Your task to perform on an android device: Go to wifi settings Image 0: 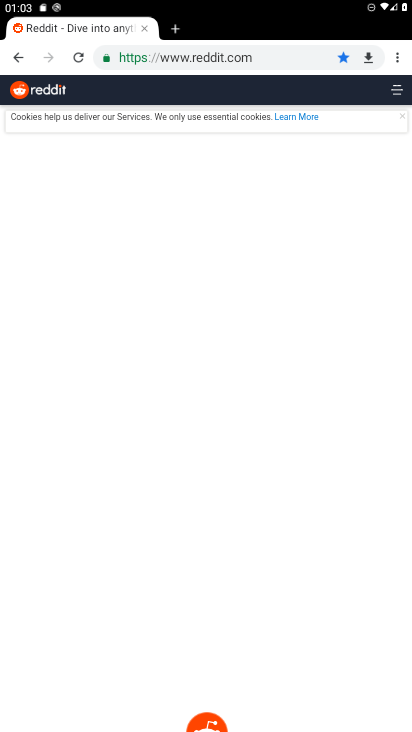
Step 0: press home button
Your task to perform on an android device: Go to wifi settings Image 1: 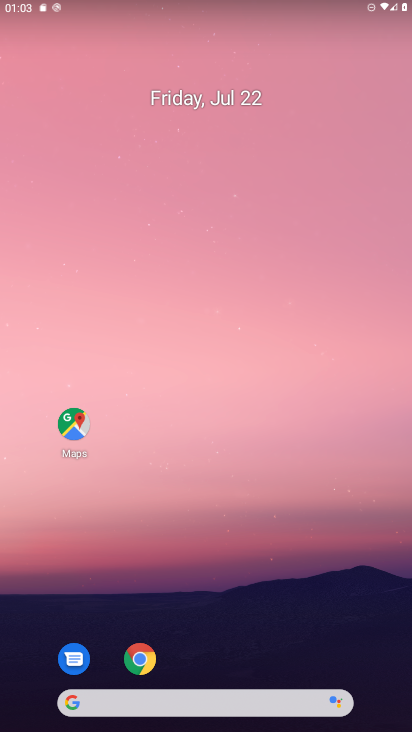
Step 1: drag from (183, 698) to (231, 191)
Your task to perform on an android device: Go to wifi settings Image 2: 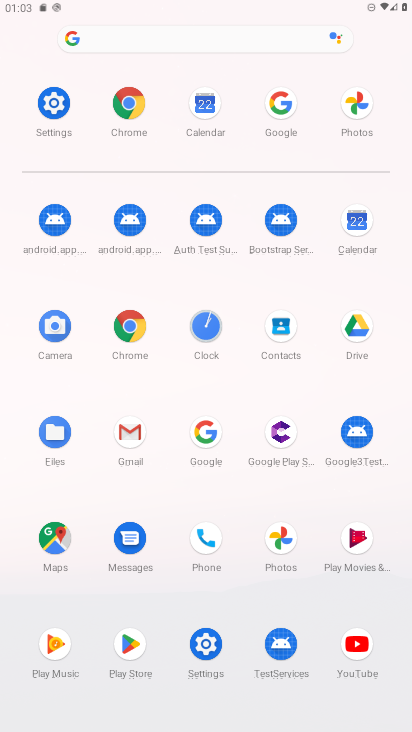
Step 2: click (53, 101)
Your task to perform on an android device: Go to wifi settings Image 3: 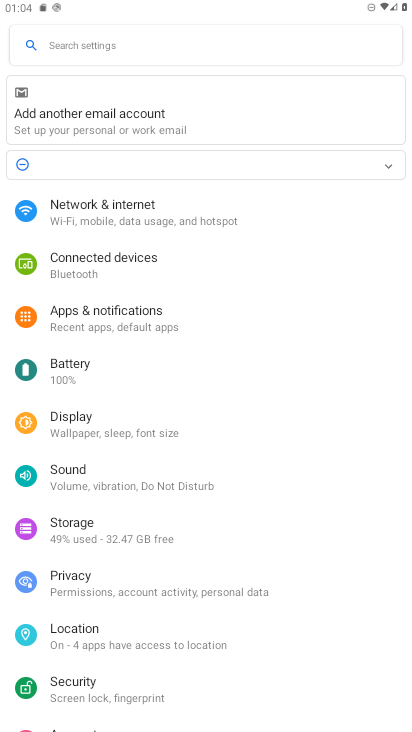
Step 3: click (83, 209)
Your task to perform on an android device: Go to wifi settings Image 4: 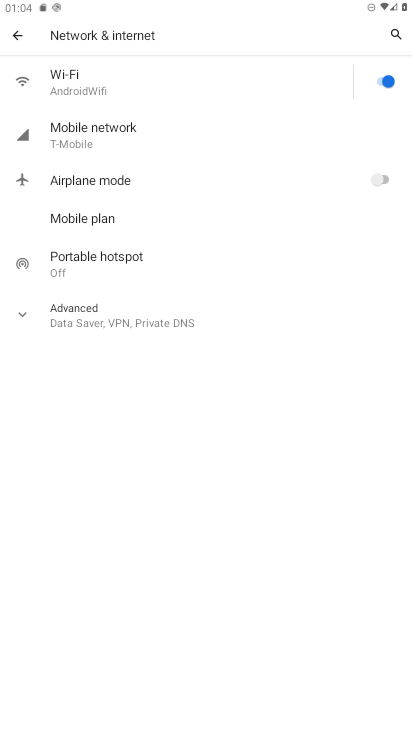
Step 4: click (91, 89)
Your task to perform on an android device: Go to wifi settings Image 5: 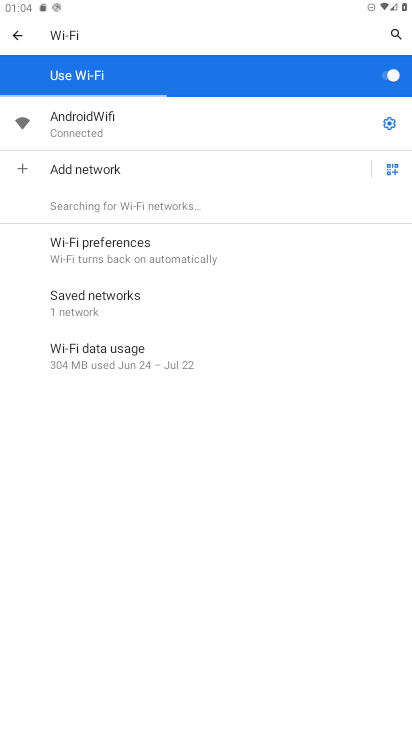
Step 5: click (391, 120)
Your task to perform on an android device: Go to wifi settings Image 6: 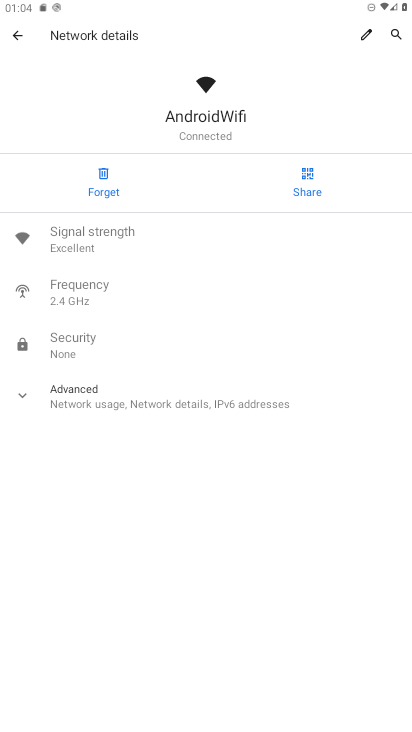
Step 6: task complete